Your task to perform on an android device: visit the assistant section in the google photos Image 0: 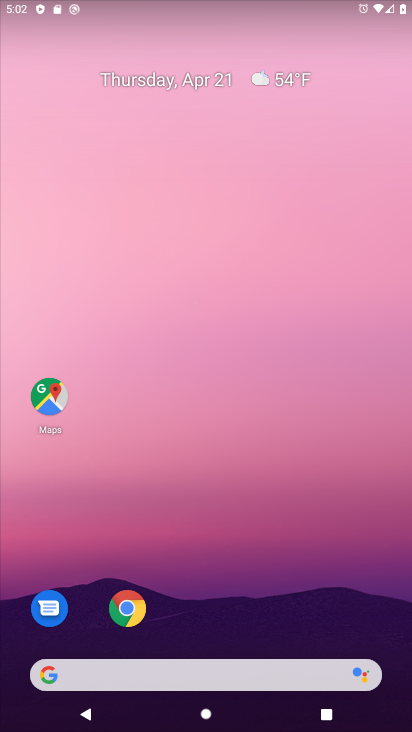
Step 0: click (189, 561)
Your task to perform on an android device: visit the assistant section in the google photos Image 1: 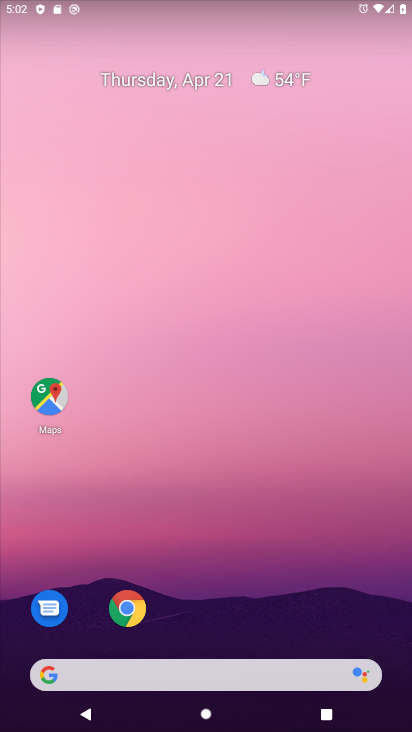
Step 1: drag from (222, 610) to (209, 155)
Your task to perform on an android device: visit the assistant section in the google photos Image 2: 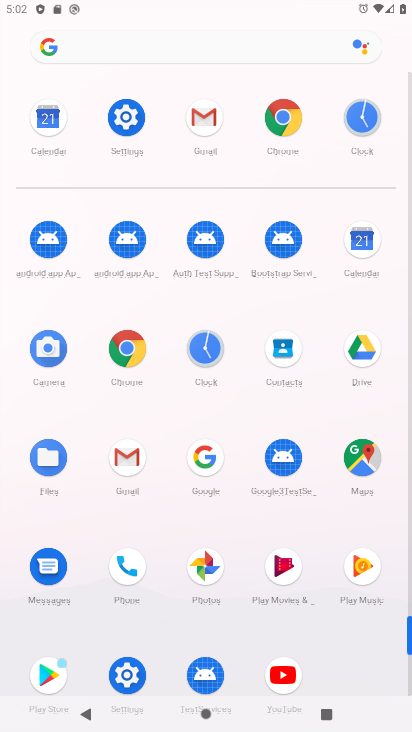
Step 2: click (203, 566)
Your task to perform on an android device: visit the assistant section in the google photos Image 3: 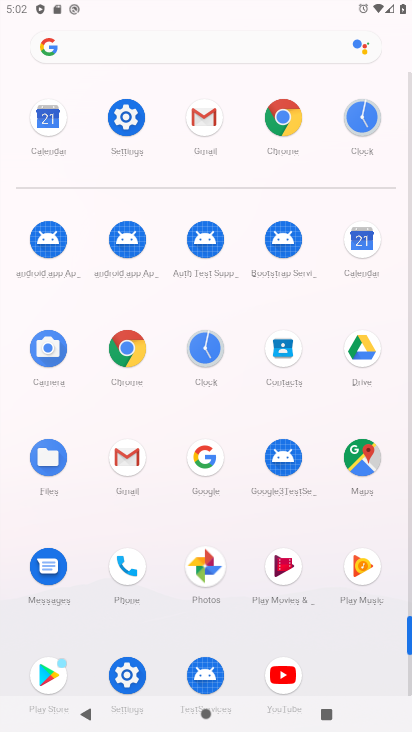
Step 3: click (203, 566)
Your task to perform on an android device: visit the assistant section in the google photos Image 4: 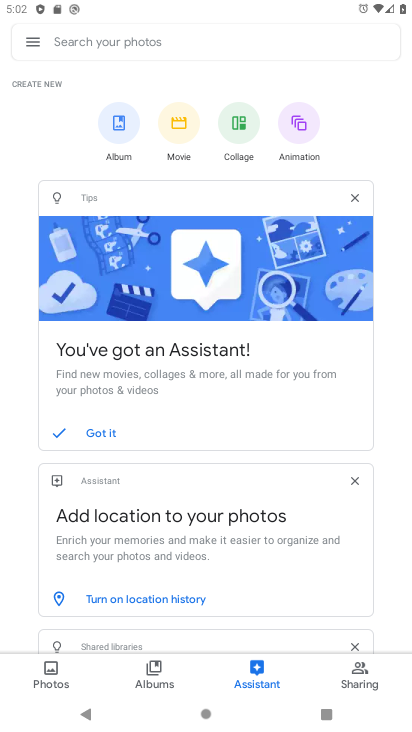
Step 4: click (35, 41)
Your task to perform on an android device: visit the assistant section in the google photos Image 5: 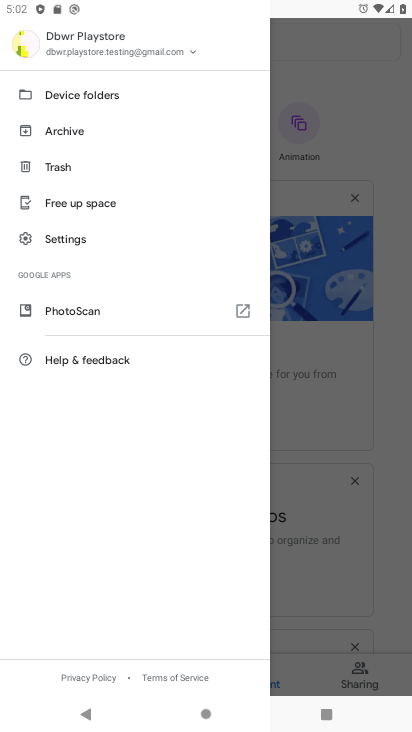
Step 5: click (72, 232)
Your task to perform on an android device: visit the assistant section in the google photos Image 6: 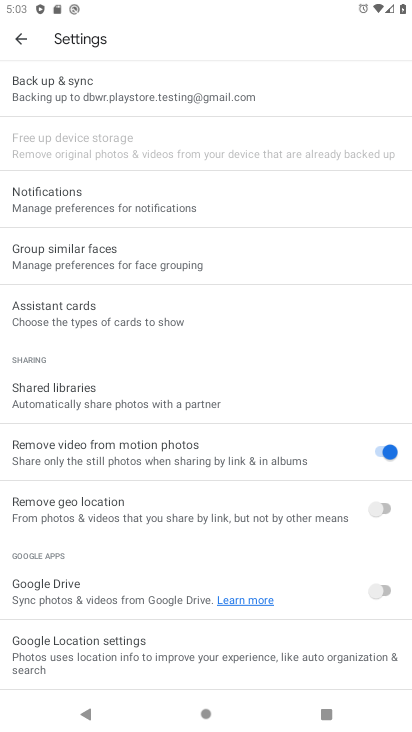
Step 6: task complete